Your task to perform on an android device: Open Google Chrome Image 0: 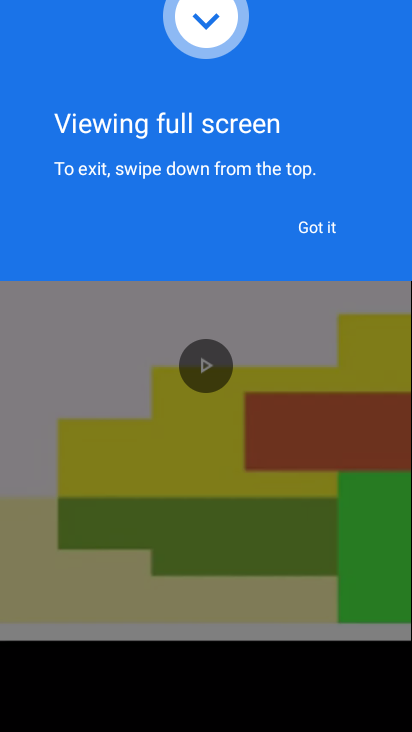
Step 0: press back button
Your task to perform on an android device: Open Google Chrome Image 1: 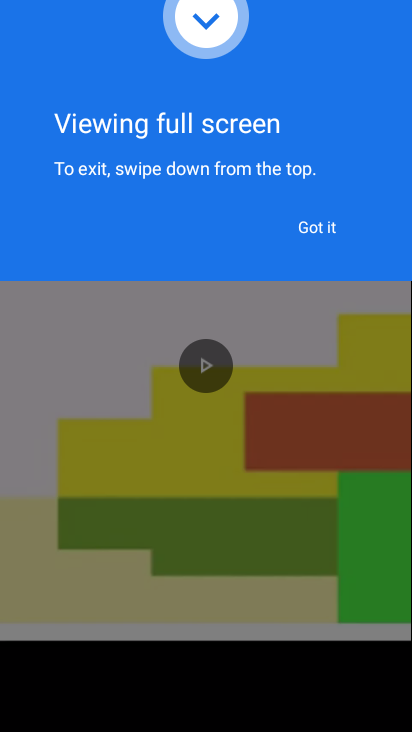
Step 1: press home button
Your task to perform on an android device: Open Google Chrome Image 2: 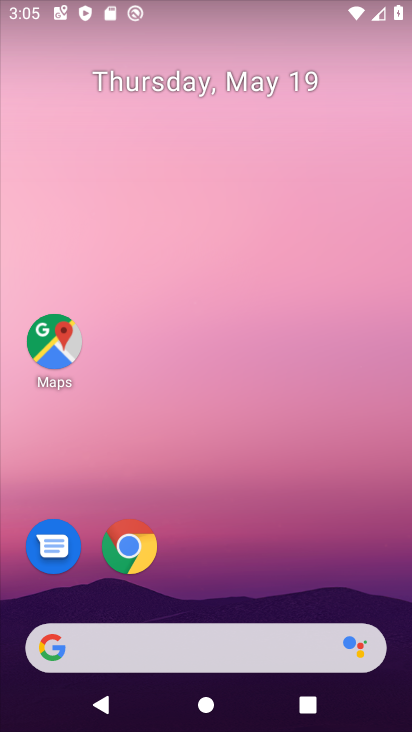
Step 2: click (132, 547)
Your task to perform on an android device: Open Google Chrome Image 3: 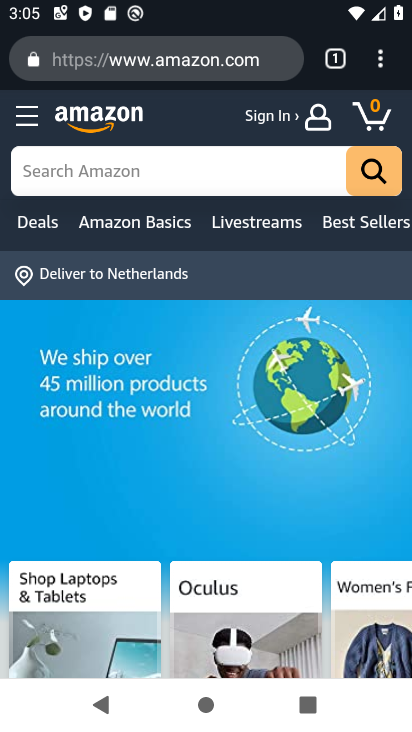
Step 3: task complete